Your task to perform on an android device: open app "LiveIn - Share Your Moment" (install if not already installed) Image 0: 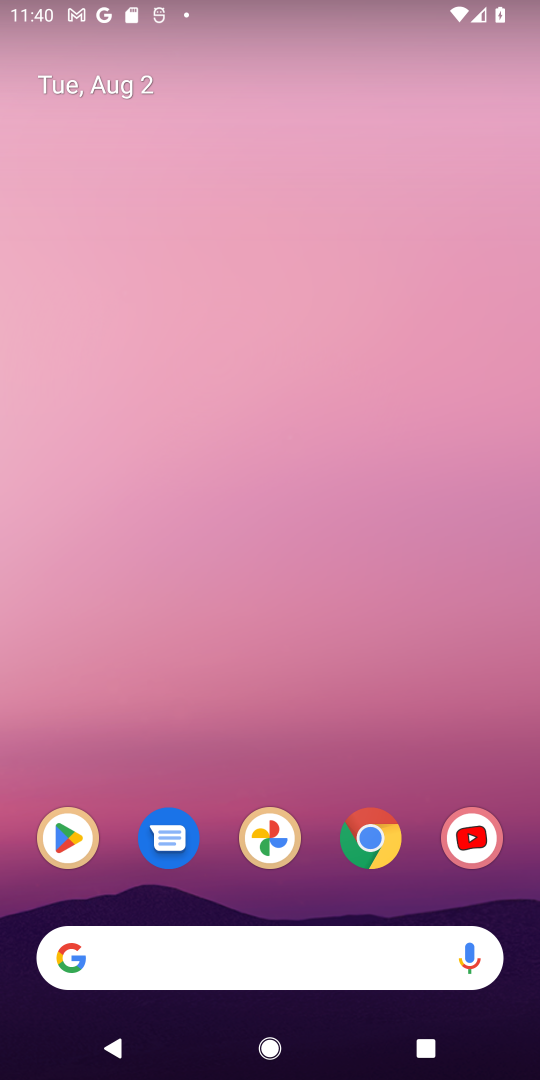
Step 0: drag from (204, 940) to (183, 402)
Your task to perform on an android device: open app "LiveIn - Share Your Moment" (install if not already installed) Image 1: 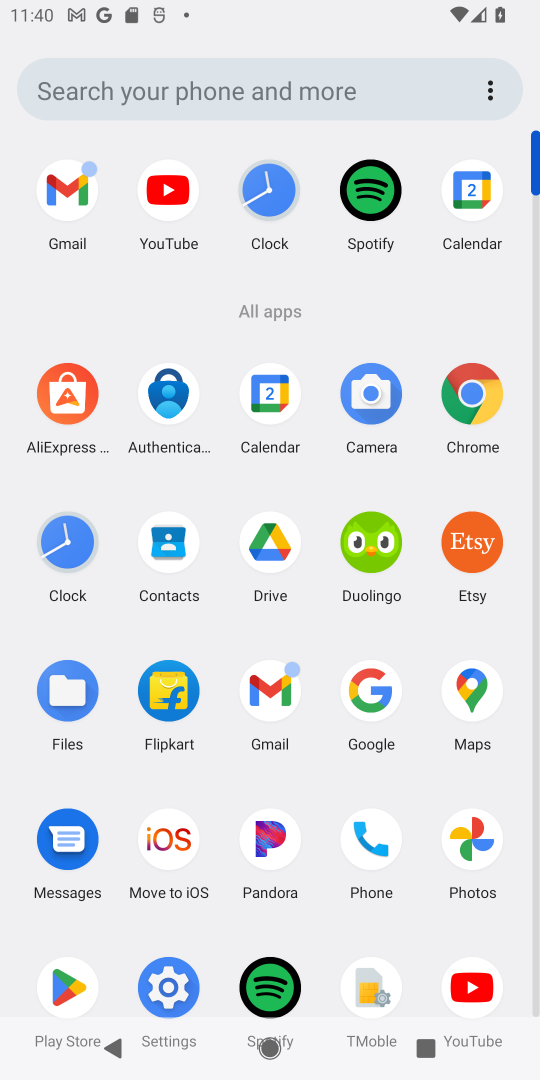
Step 1: click (77, 996)
Your task to perform on an android device: open app "LiveIn - Share Your Moment" (install if not already installed) Image 2: 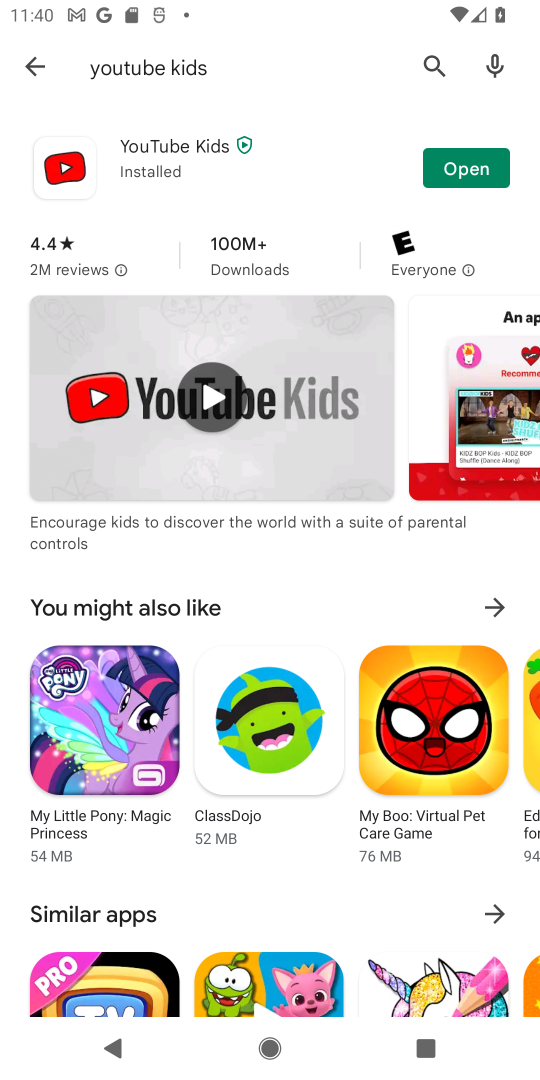
Step 2: click (434, 73)
Your task to perform on an android device: open app "LiveIn - Share Your Moment" (install if not already installed) Image 3: 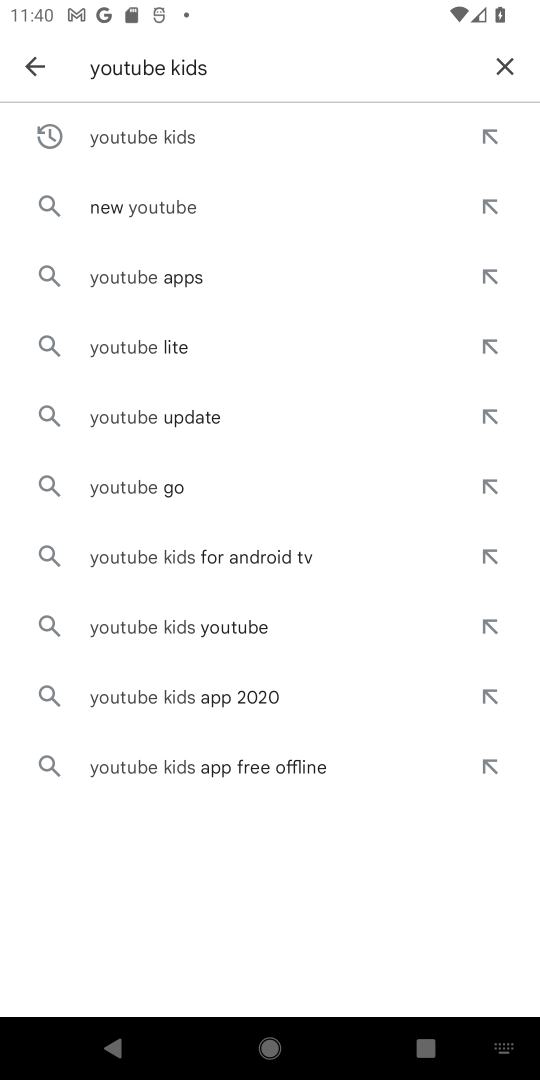
Step 3: click (504, 59)
Your task to perform on an android device: open app "LiveIn - Share Your Moment" (install if not already installed) Image 4: 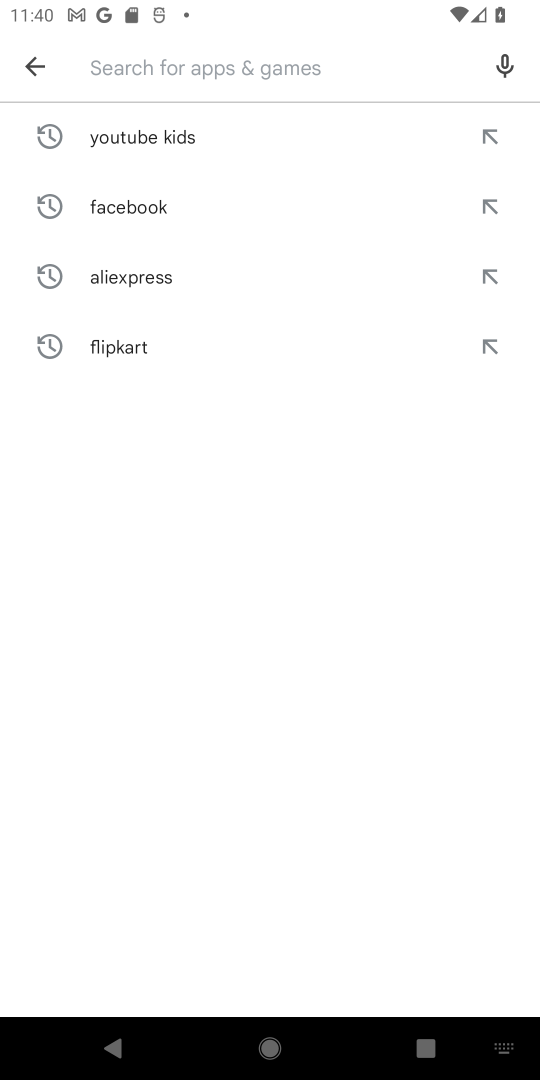
Step 4: type "LiveIn - Share Your Moment"
Your task to perform on an android device: open app "LiveIn - Share Your Moment" (install if not already installed) Image 5: 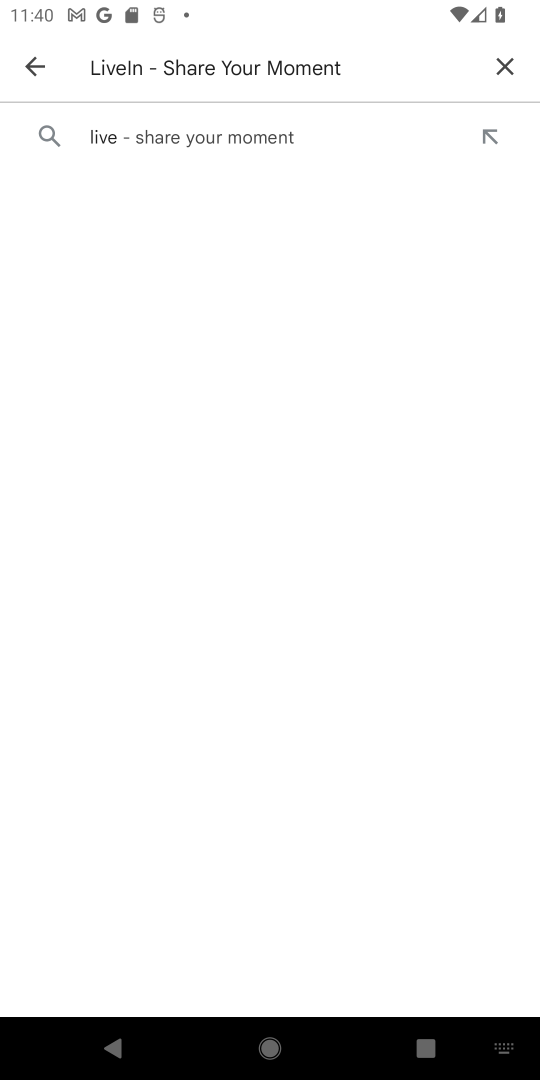
Step 5: click (210, 130)
Your task to perform on an android device: open app "LiveIn - Share Your Moment" (install if not already installed) Image 6: 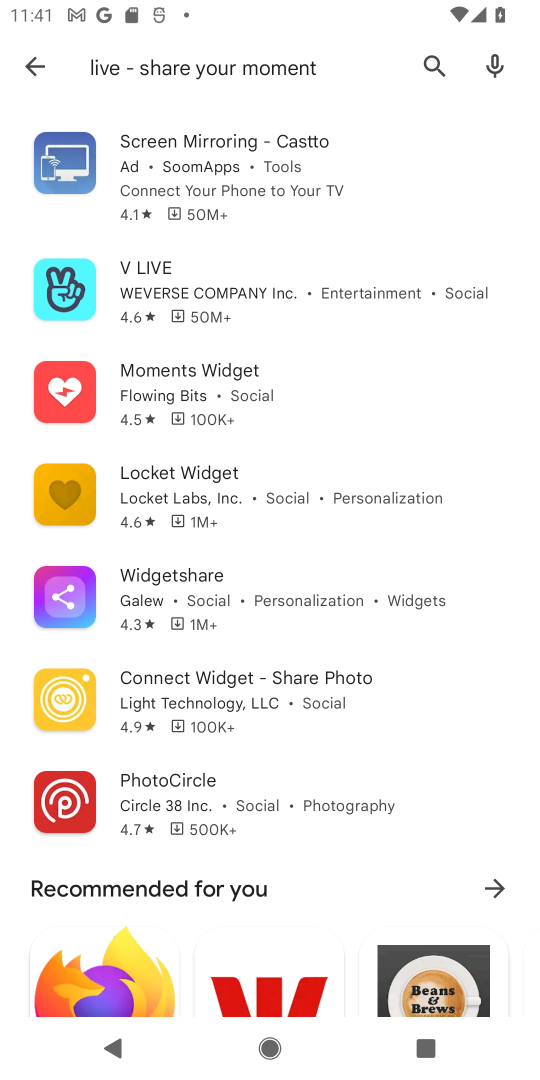
Step 6: task complete